Your task to perform on an android device: open sync settings in chrome Image 0: 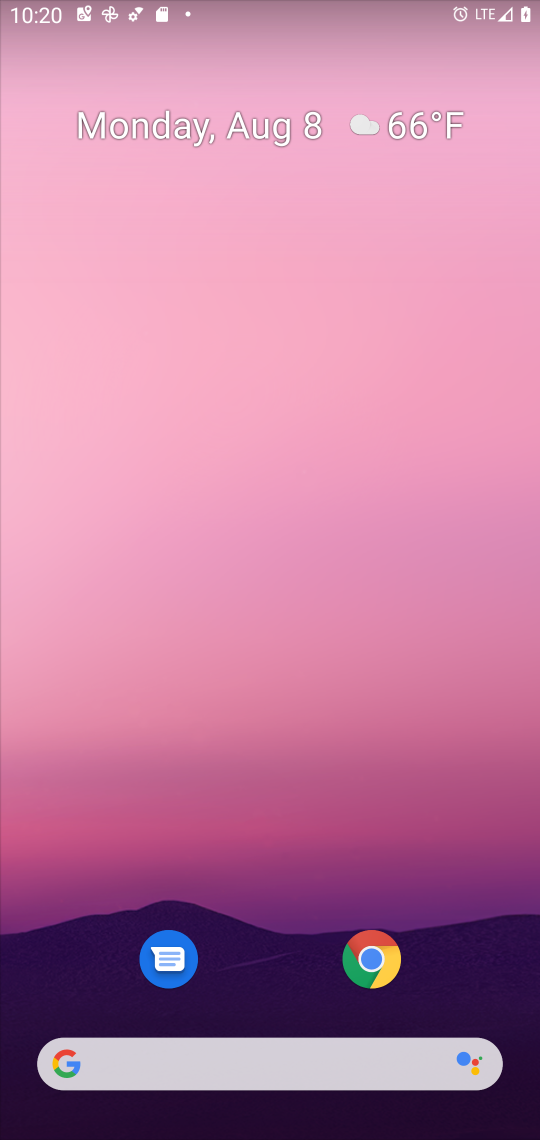
Step 0: drag from (477, 1016) to (257, 87)
Your task to perform on an android device: open sync settings in chrome Image 1: 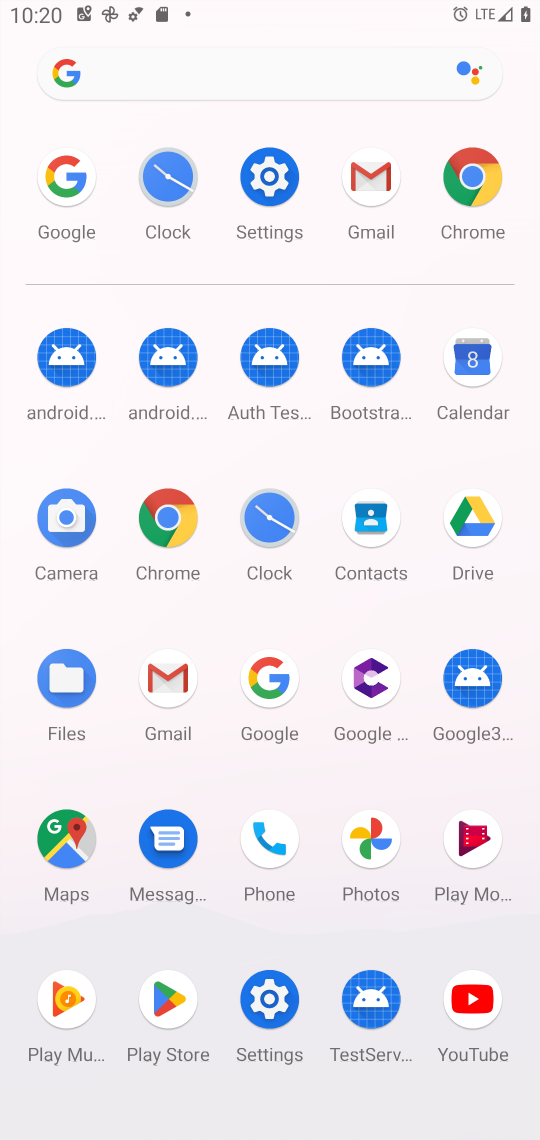
Step 1: click (185, 521)
Your task to perform on an android device: open sync settings in chrome Image 2: 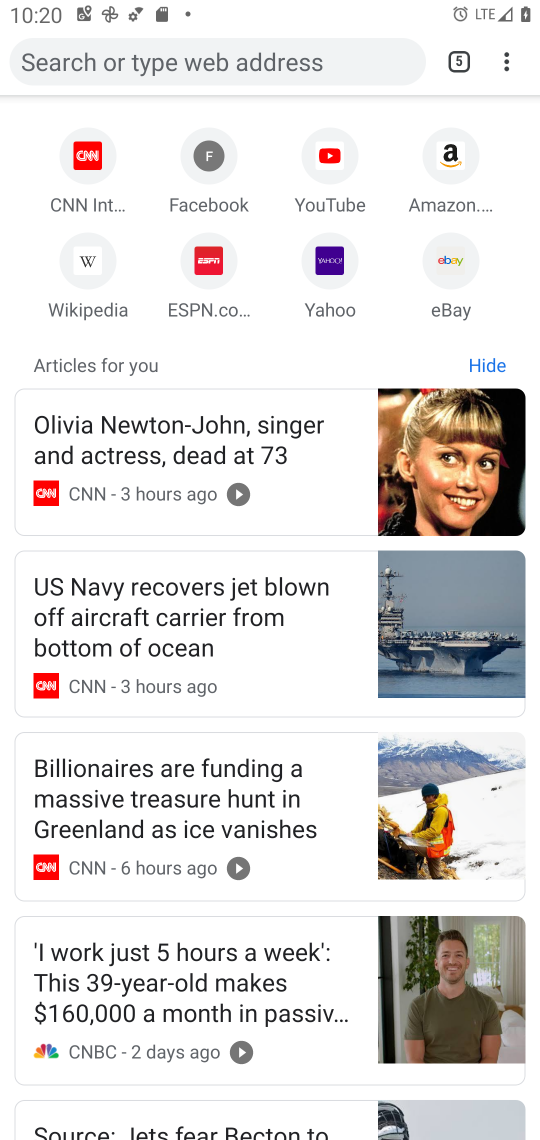
Step 2: click (512, 64)
Your task to perform on an android device: open sync settings in chrome Image 3: 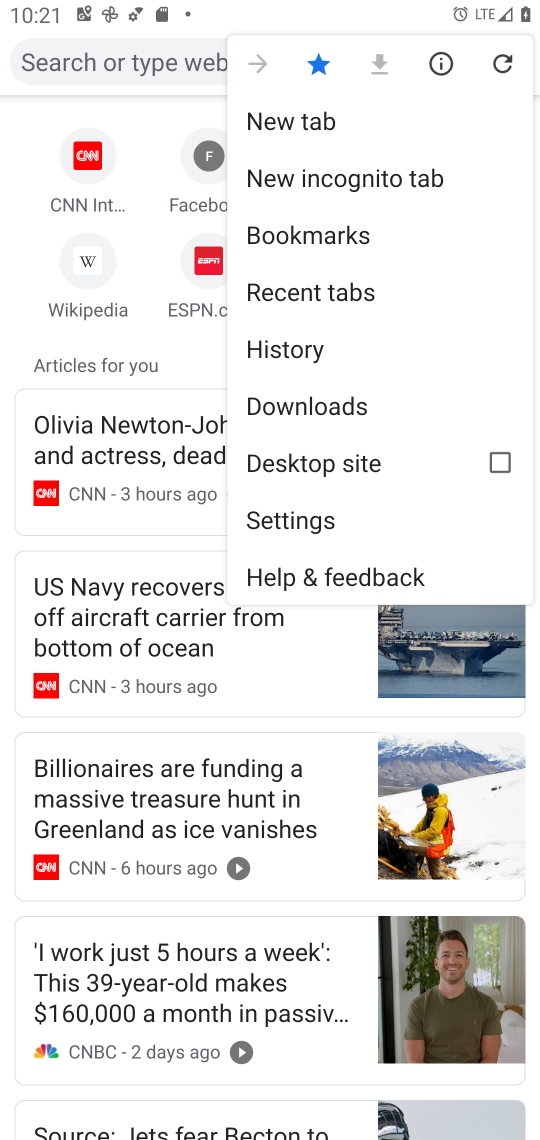
Step 3: click (308, 527)
Your task to perform on an android device: open sync settings in chrome Image 4: 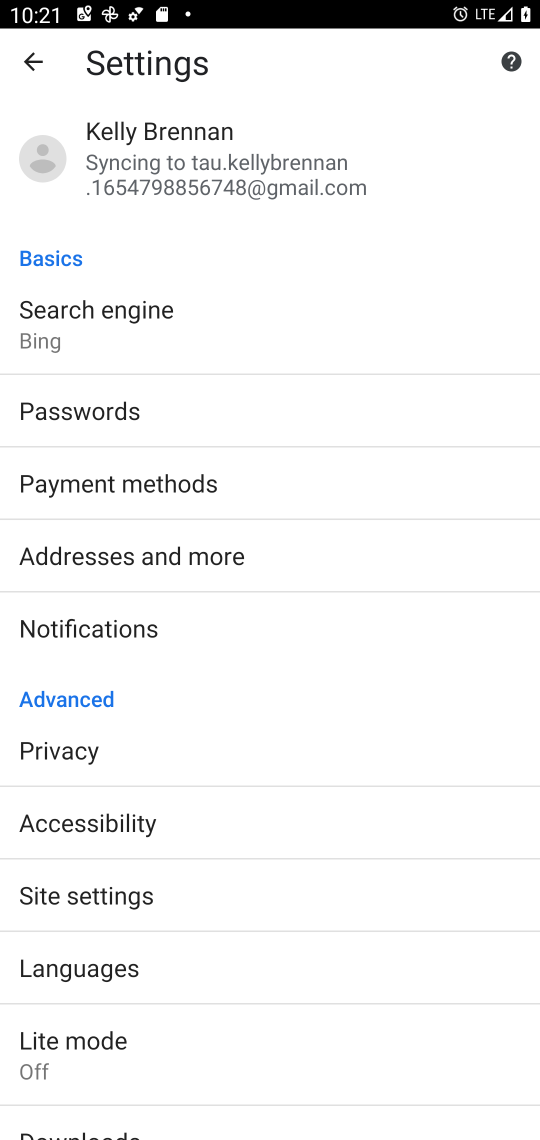
Step 4: click (155, 883)
Your task to perform on an android device: open sync settings in chrome Image 5: 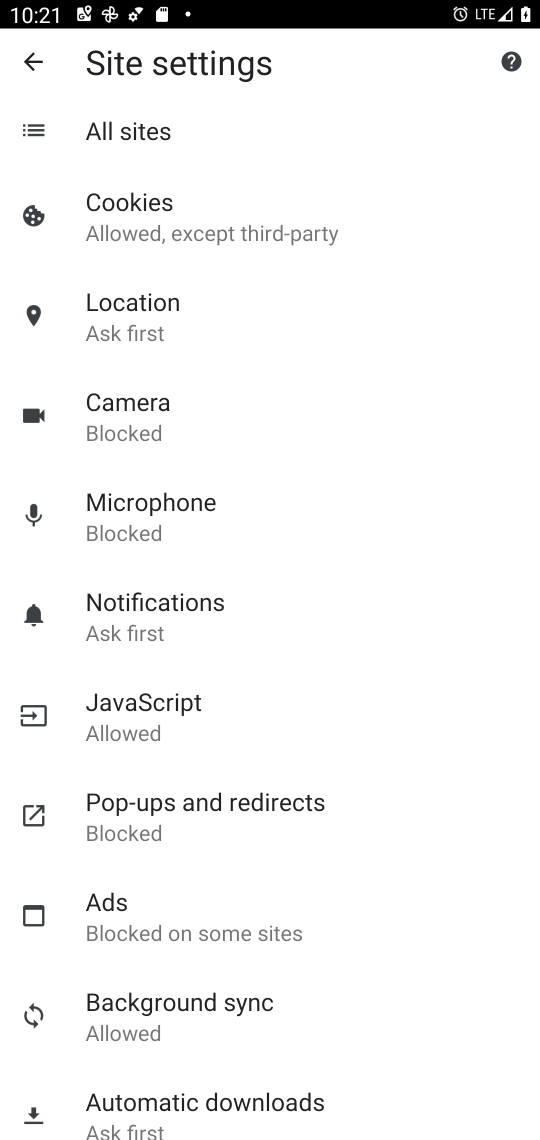
Step 5: drag from (136, 805) to (156, 173)
Your task to perform on an android device: open sync settings in chrome Image 6: 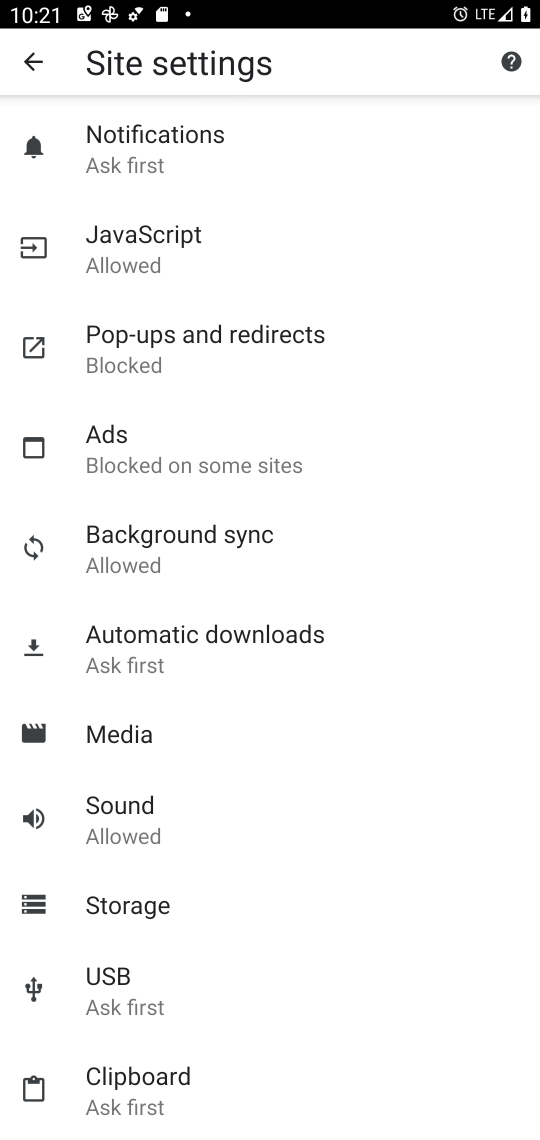
Step 6: click (202, 554)
Your task to perform on an android device: open sync settings in chrome Image 7: 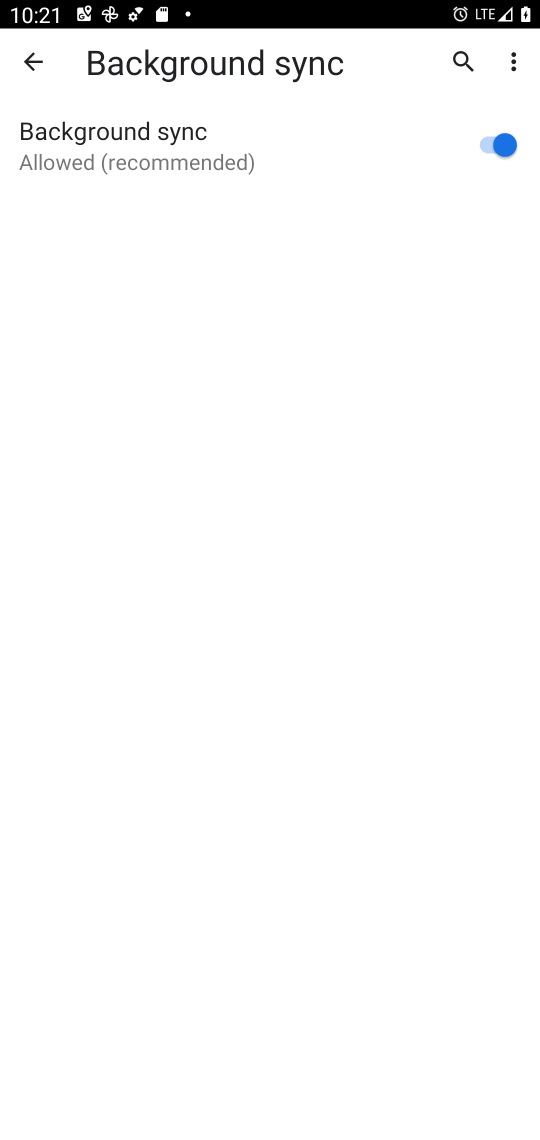
Step 7: task complete